Your task to perform on an android device: Open CNN.com Image 0: 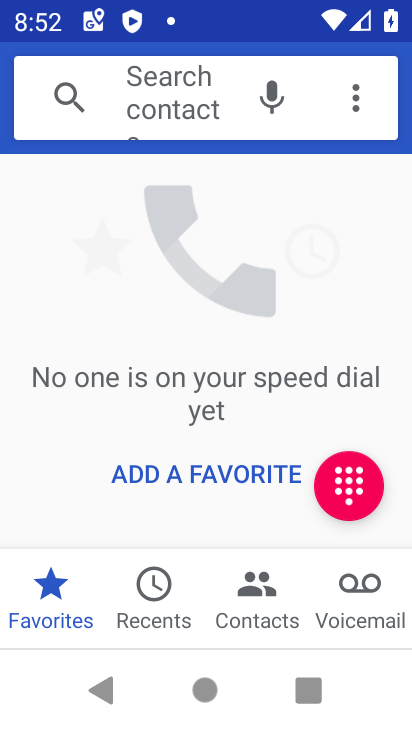
Step 0: press home button
Your task to perform on an android device: Open CNN.com Image 1: 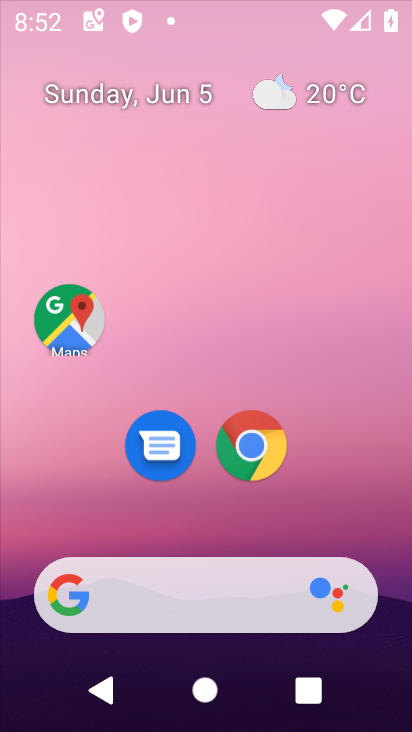
Step 1: drag from (268, 618) to (317, 2)
Your task to perform on an android device: Open CNN.com Image 2: 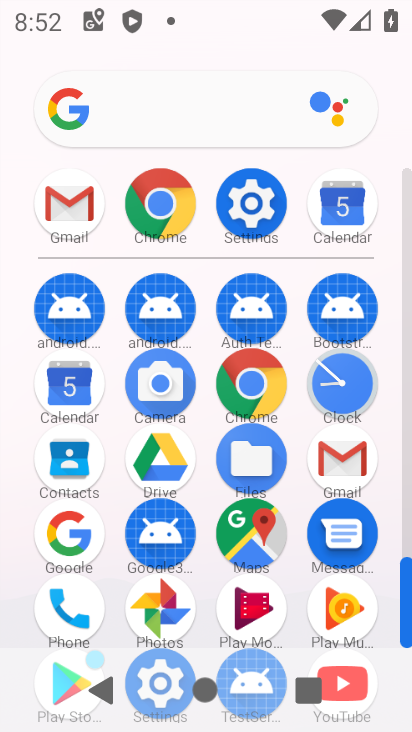
Step 2: click (245, 370)
Your task to perform on an android device: Open CNN.com Image 3: 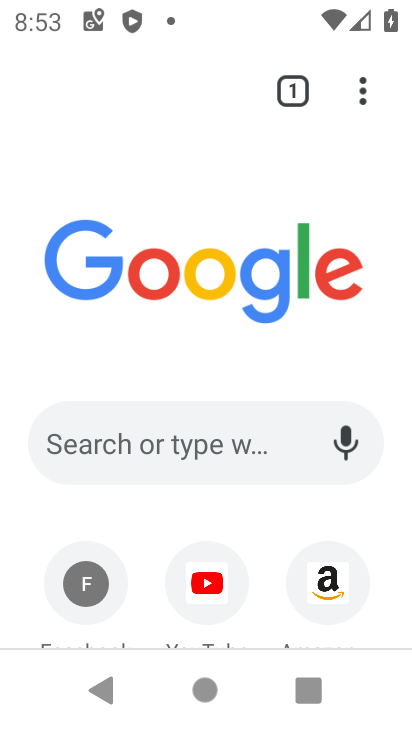
Step 3: click (133, 439)
Your task to perform on an android device: Open CNN.com Image 4: 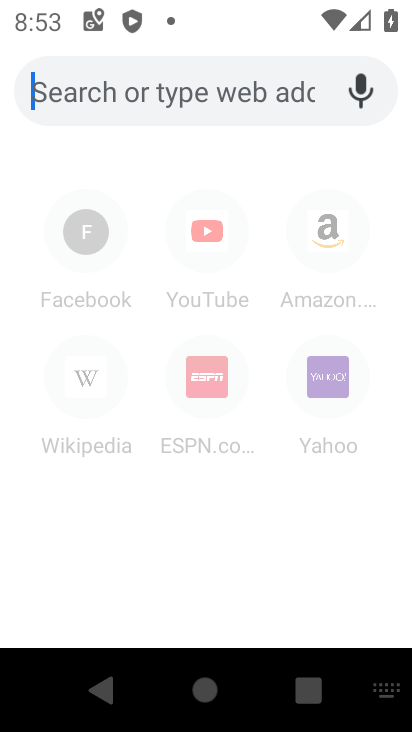
Step 4: type "cnn.com"
Your task to perform on an android device: Open CNN.com Image 5: 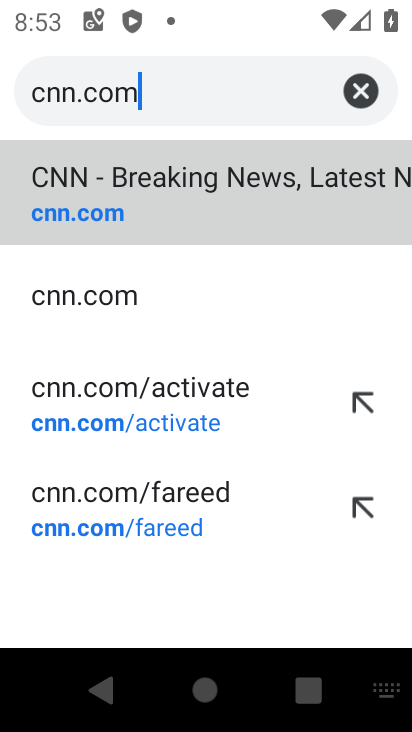
Step 5: click (227, 178)
Your task to perform on an android device: Open CNN.com Image 6: 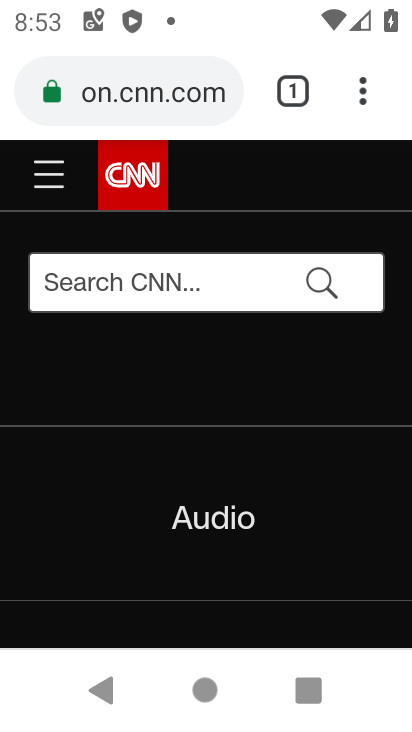
Step 6: task complete